Your task to perform on an android device: turn on showing notifications on the lock screen Image 0: 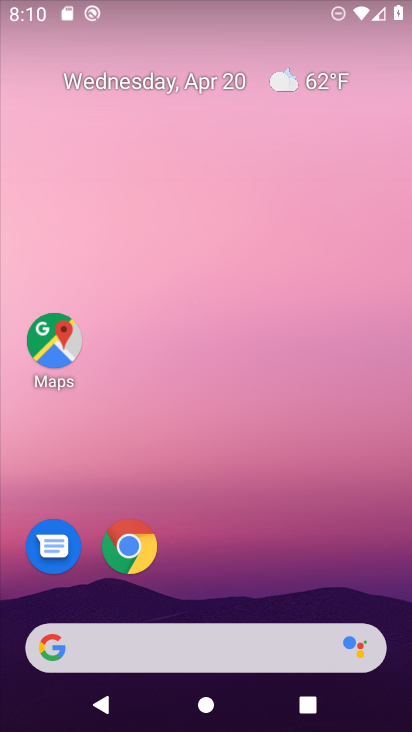
Step 0: drag from (249, 542) to (310, 110)
Your task to perform on an android device: turn on showing notifications on the lock screen Image 1: 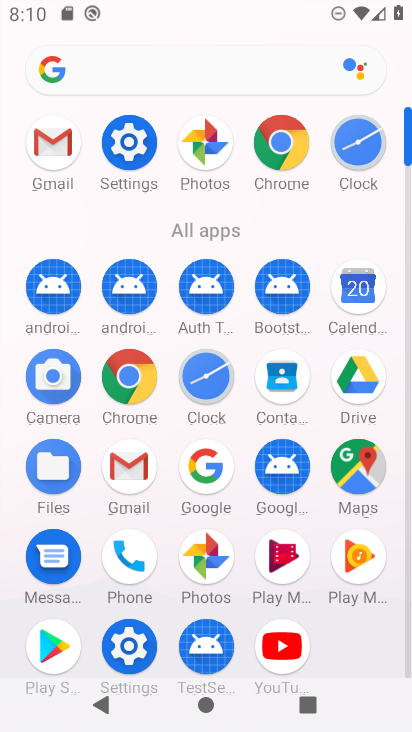
Step 1: click (131, 141)
Your task to perform on an android device: turn on showing notifications on the lock screen Image 2: 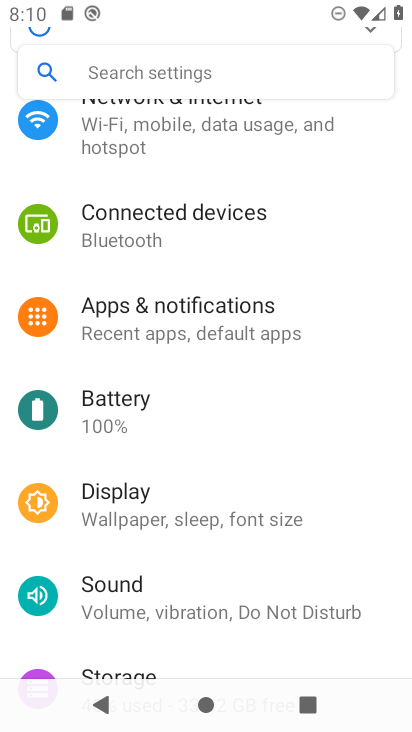
Step 2: click (202, 326)
Your task to perform on an android device: turn on showing notifications on the lock screen Image 3: 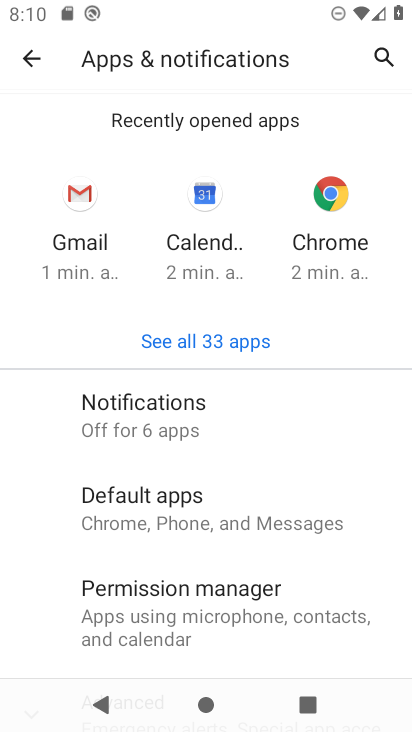
Step 3: drag from (258, 565) to (290, 365)
Your task to perform on an android device: turn on showing notifications on the lock screen Image 4: 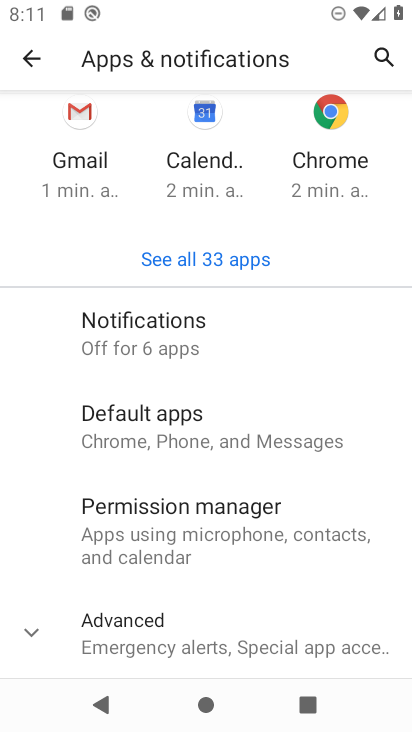
Step 4: click (236, 322)
Your task to perform on an android device: turn on showing notifications on the lock screen Image 5: 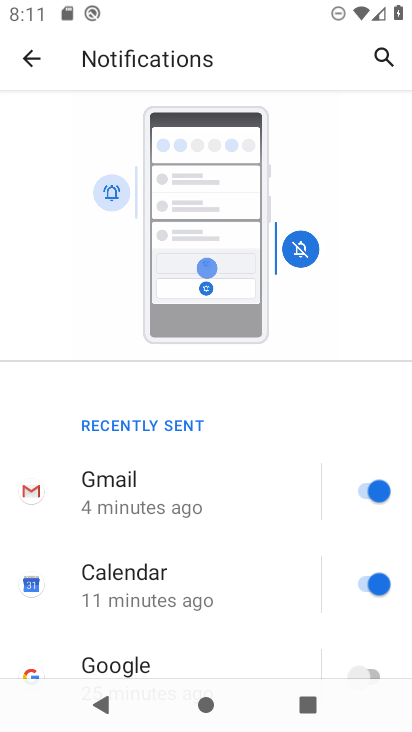
Step 5: drag from (211, 627) to (254, 121)
Your task to perform on an android device: turn on showing notifications on the lock screen Image 6: 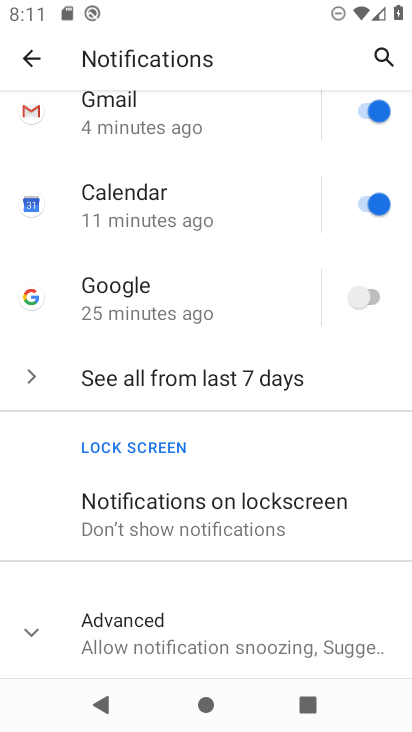
Step 6: click (213, 518)
Your task to perform on an android device: turn on showing notifications on the lock screen Image 7: 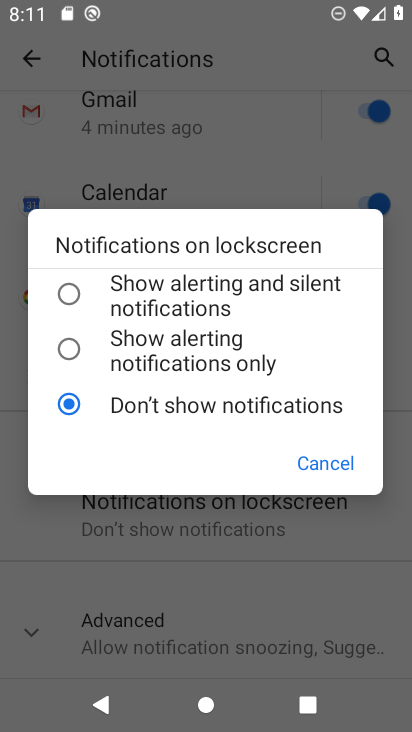
Step 7: click (68, 288)
Your task to perform on an android device: turn on showing notifications on the lock screen Image 8: 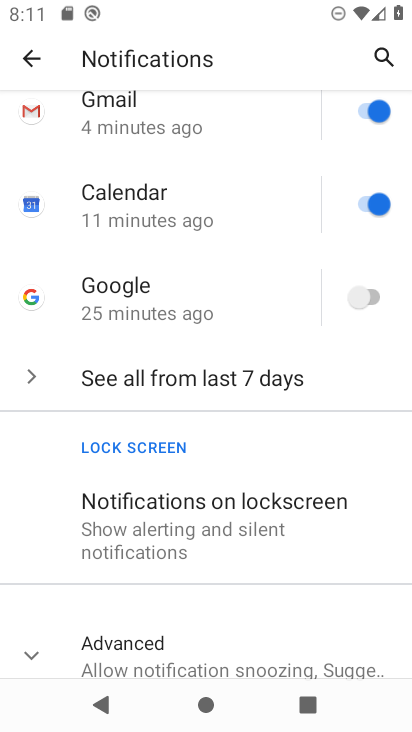
Step 8: task complete